Your task to perform on an android device: change the clock style Image 0: 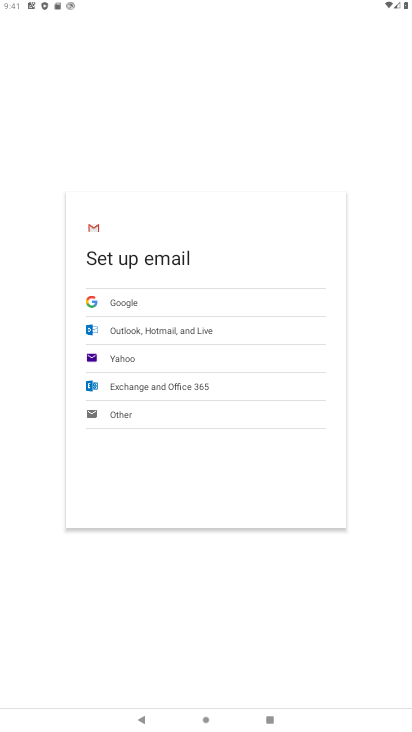
Step 0: press home button
Your task to perform on an android device: change the clock style Image 1: 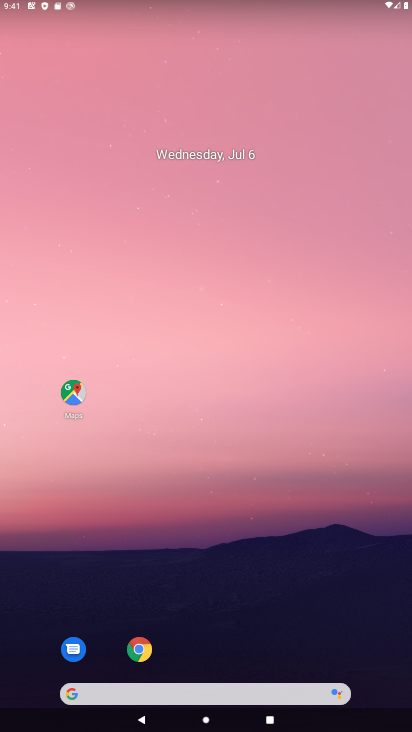
Step 1: drag from (221, 624) to (240, 139)
Your task to perform on an android device: change the clock style Image 2: 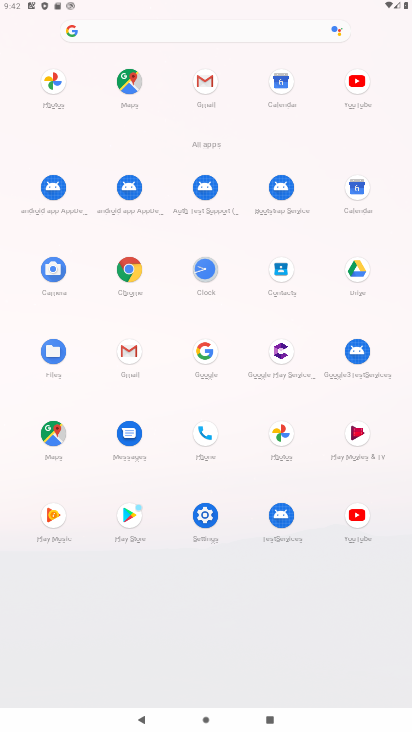
Step 2: click (206, 266)
Your task to perform on an android device: change the clock style Image 3: 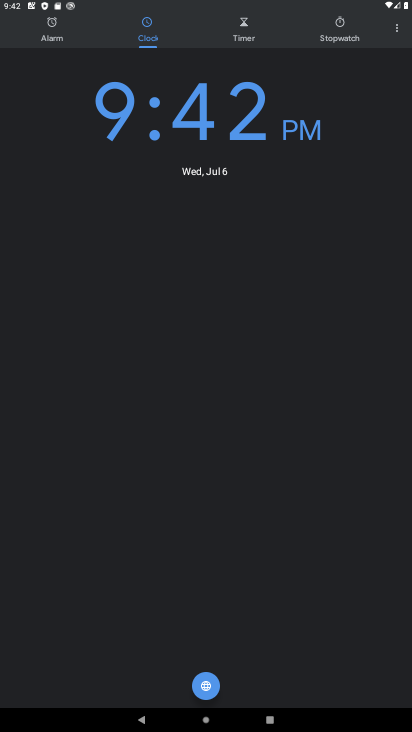
Step 3: click (400, 33)
Your task to perform on an android device: change the clock style Image 4: 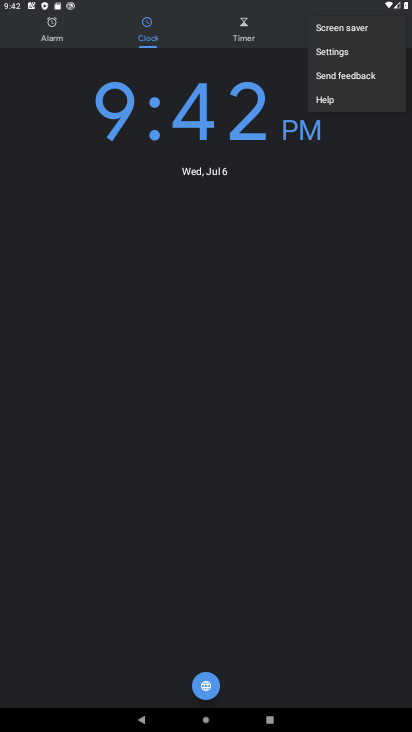
Step 4: click (348, 50)
Your task to perform on an android device: change the clock style Image 5: 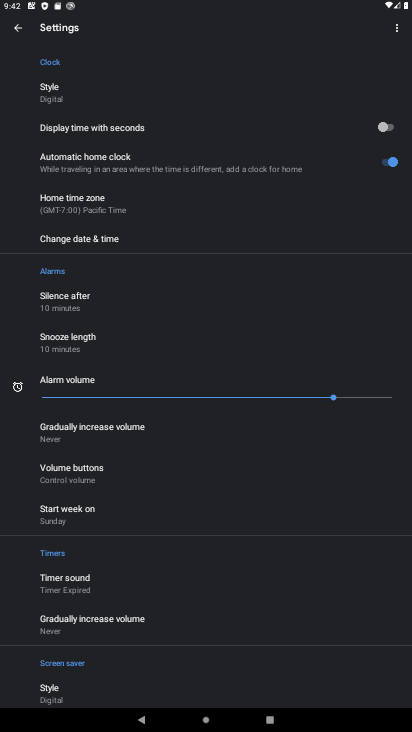
Step 5: click (66, 95)
Your task to perform on an android device: change the clock style Image 6: 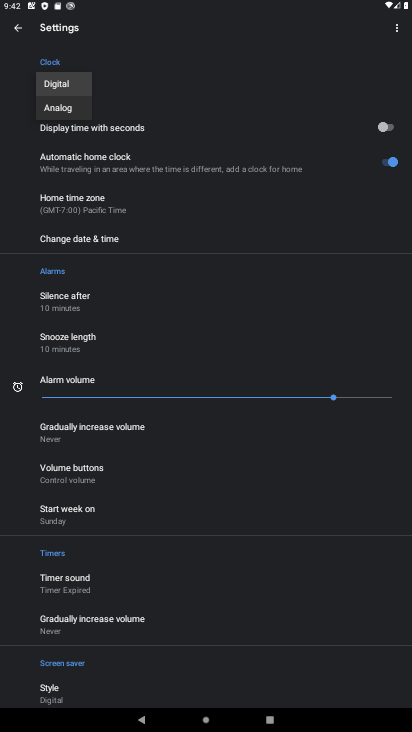
Step 6: click (67, 107)
Your task to perform on an android device: change the clock style Image 7: 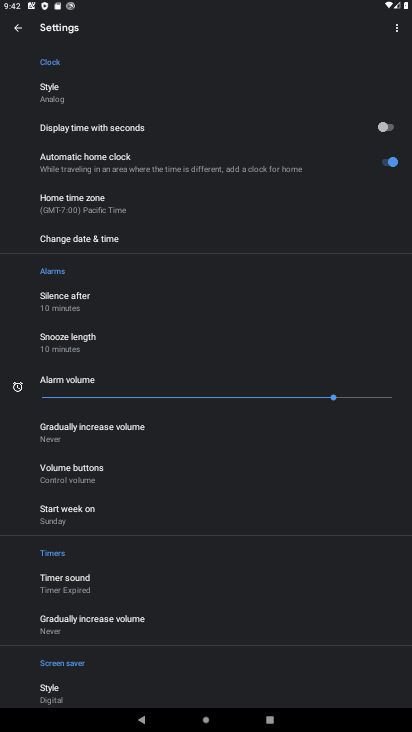
Step 7: task complete